Your task to perform on an android device: Open battery settings Image 0: 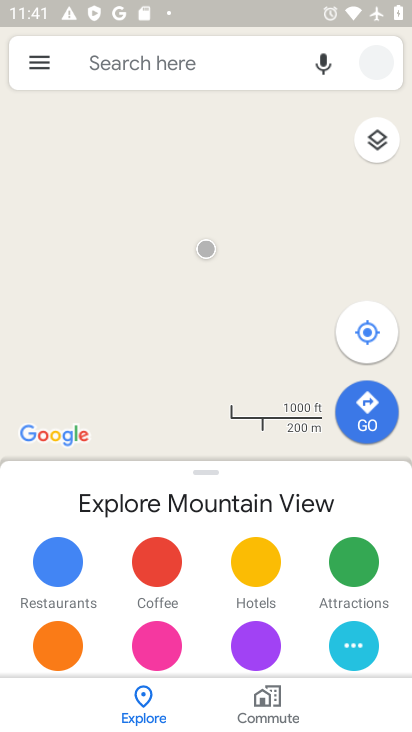
Step 0: press home button
Your task to perform on an android device: Open battery settings Image 1: 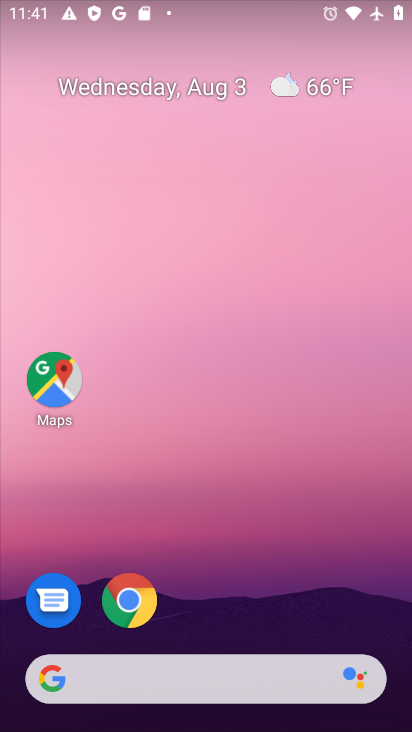
Step 1: drag from (214, 625) to (79, 27)
Your task to perform on an android device: Open battery settings Image 2: 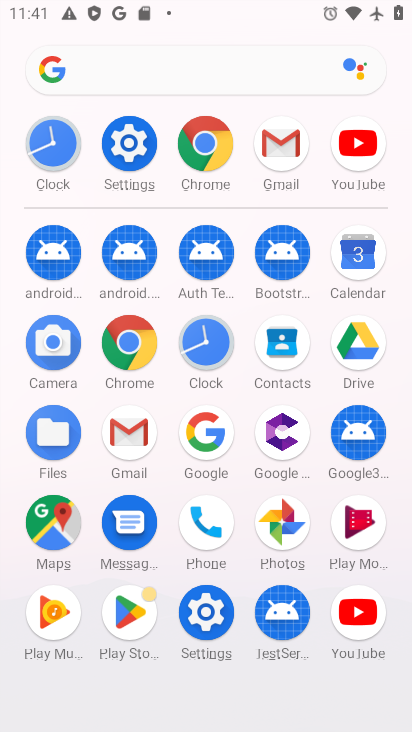
Step 2: click (130, 153)
Your task to perform on an android device: Open battery settings Image 3: 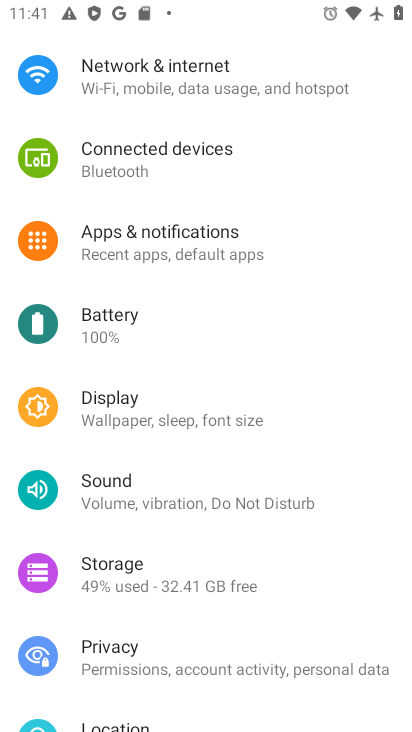
Step 3: click (105, 343)
Your task to perform on an android device: Open battery settings Image 4: 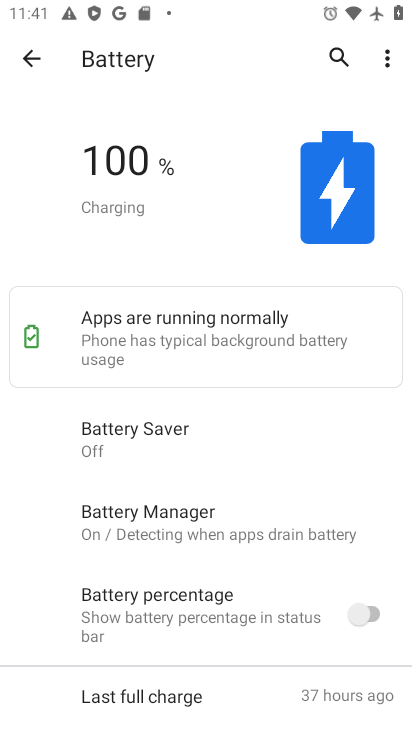
Step 4: task complete